Your task to perform on an android device: Open CNN.com Image 0: 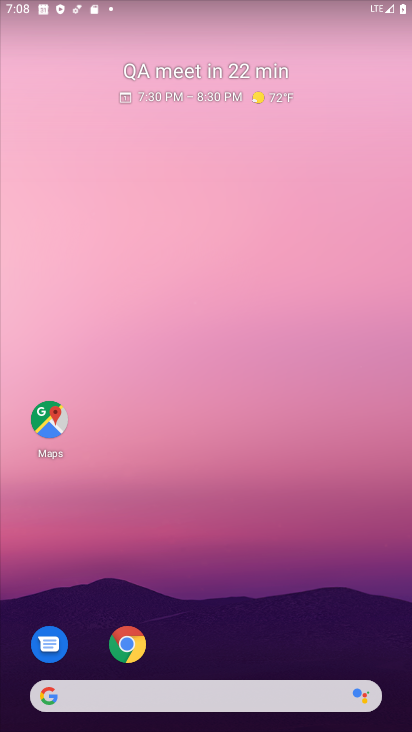
Step 0: drag from (251, 717) to (315, 283)
Your task to perform on an android device: Open CNN.com Image 1: 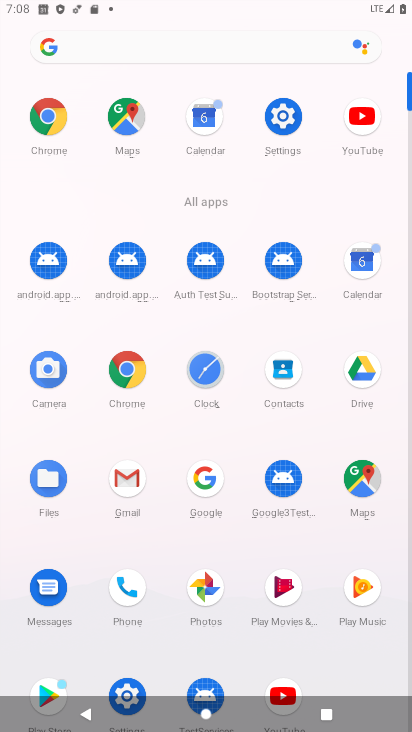
Step 1: click (56, 104)
Your task to perform on an android device: Open CNN.com Image 2: 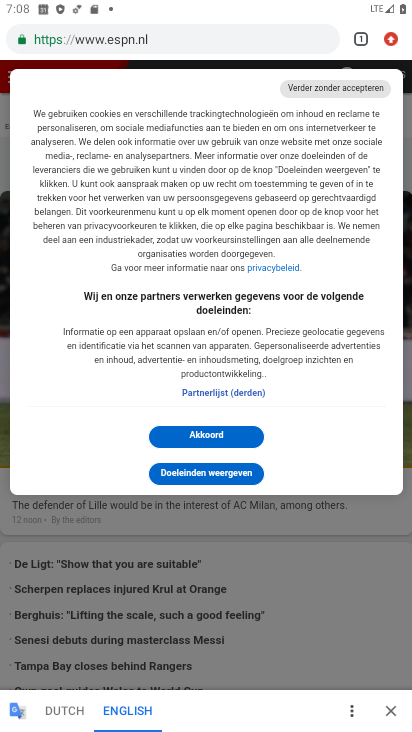
Step 2: click (189, 430)
Your task to perform on an android device: Open CNN.com Image 3: 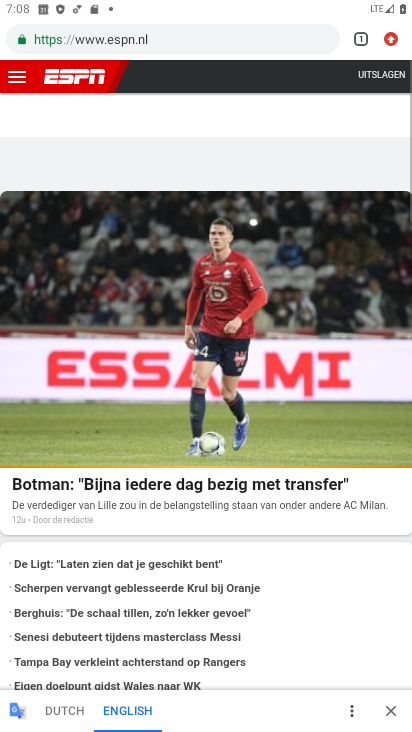
Step 3: click (122, 27)
Your task to perform on an android device: Open CNN.com Image 4: 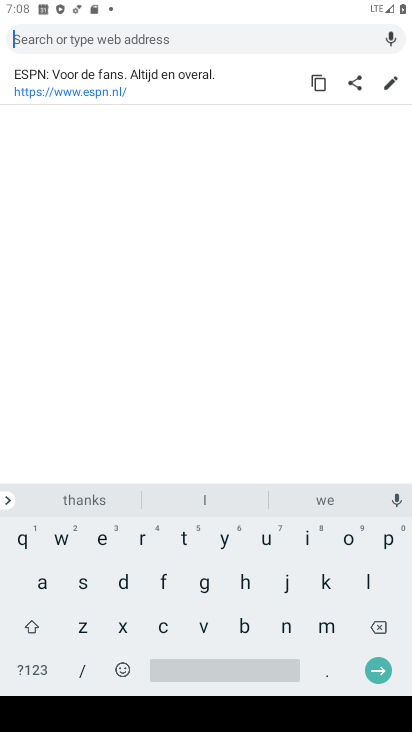
Step 4: click (157, 627)
Your task to perform on an android device: Open CNN.com Image 5: 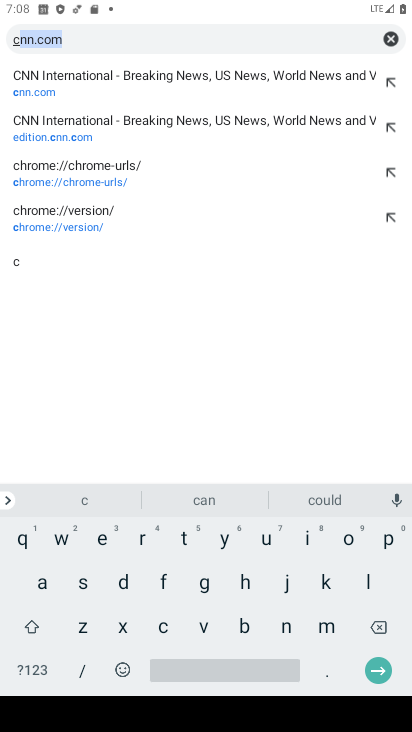
Step 5: click (286, 627)
Your task to perform on an android device: Open CNN.com Image 6: 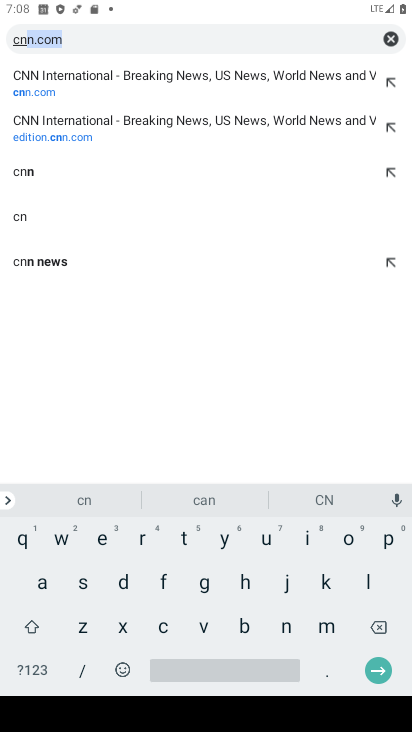
Step 6: click (69, 33)
Your task to perform on an android device: Open CNN.com Image 7: 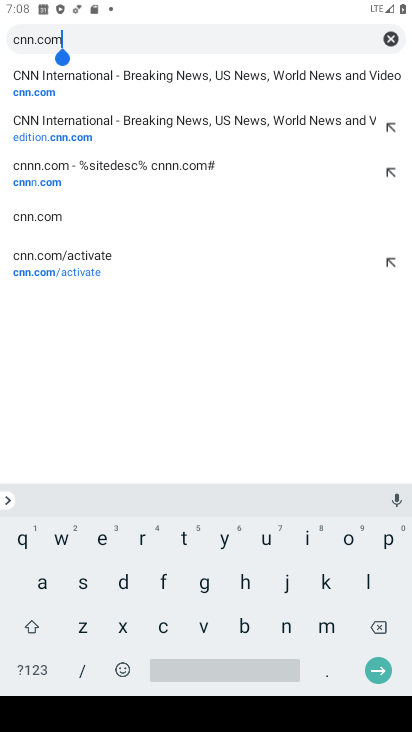
Step 7: click (381, 668)
Your task to perform on an android device: Open CNN.com Image 8: 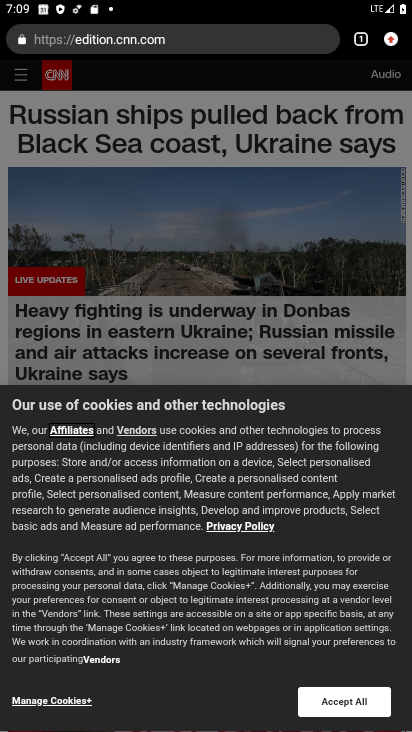
Step 8: click (339, 692)
Your task to perform on an android device: Open CNN.com Image 9: 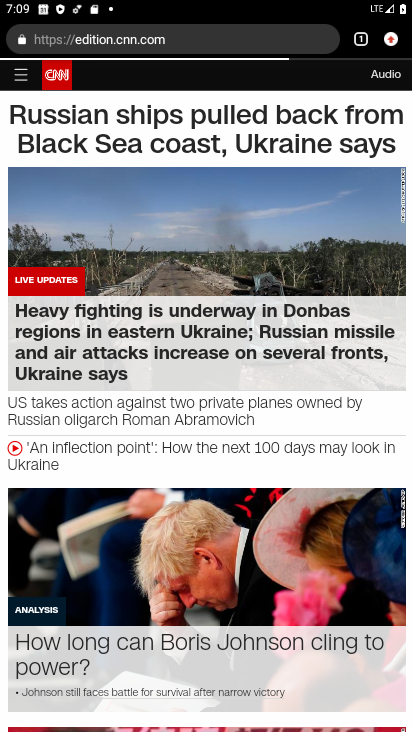
Step 9: task complete